Your task to perform on an android device: What's on my calendar today? Image 0: 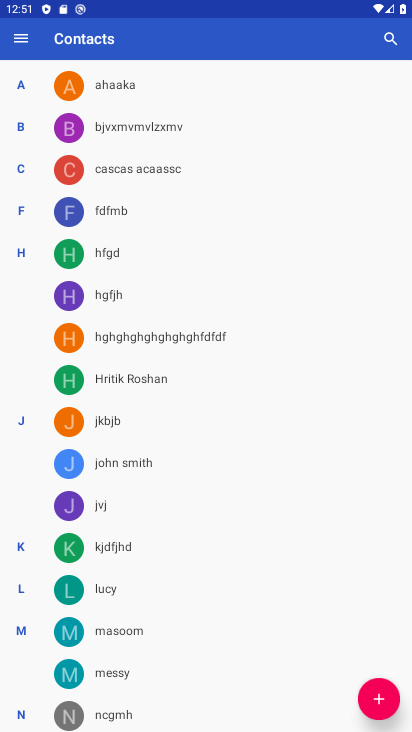
Step 0: press home button
Your task to perform on an android device: What's on my calendar today? Image 1: 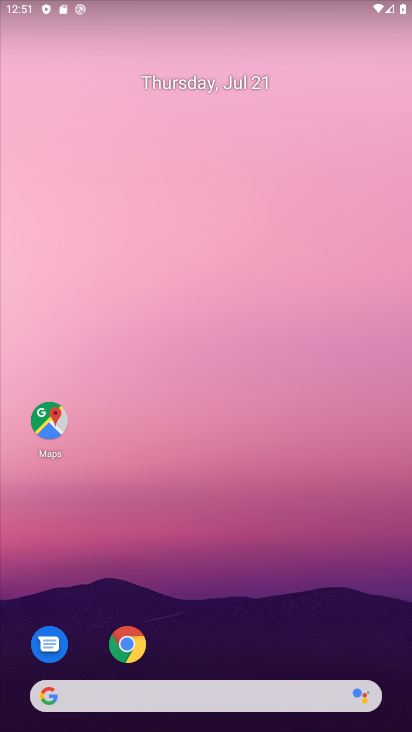
Step 1: drag from (194, 673) to (160, 87)
Your task to perform on an android device: What's on my calendar today? Image 2: 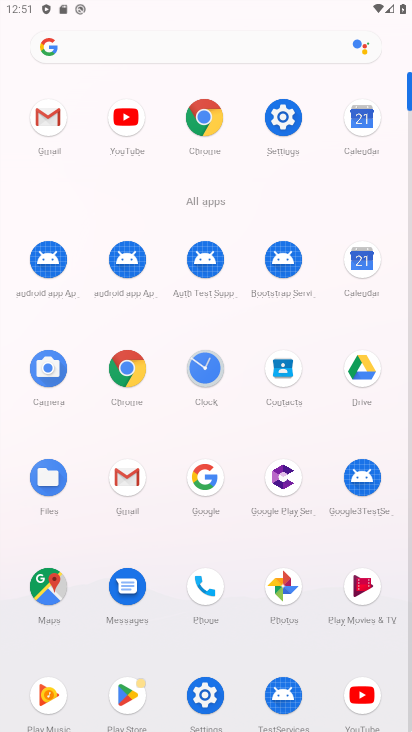
Step 2: click (362, 272)
Your task to perform on an android device: What's on my calendar today? Image 3: 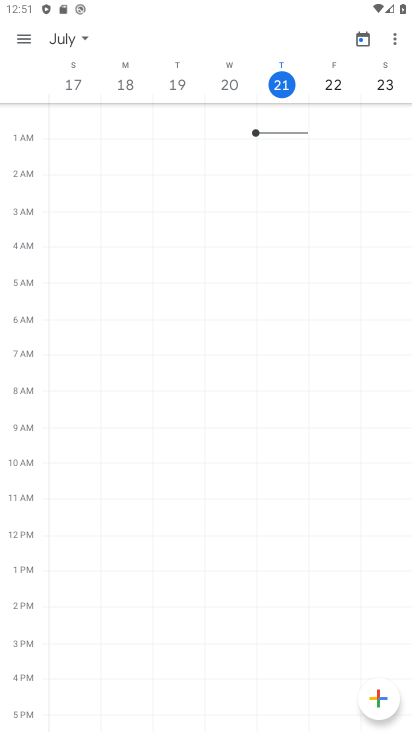
Step 3: click (282, 79)
Your task to perform on an android device: What's on my calendar today? Image 4: 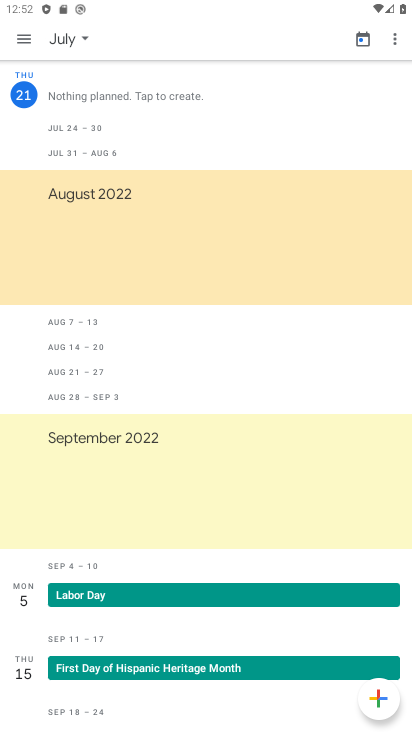
Step 4: task complete